Your task to perform on an android device: Open calendar and show me the second week of next month Image 0: 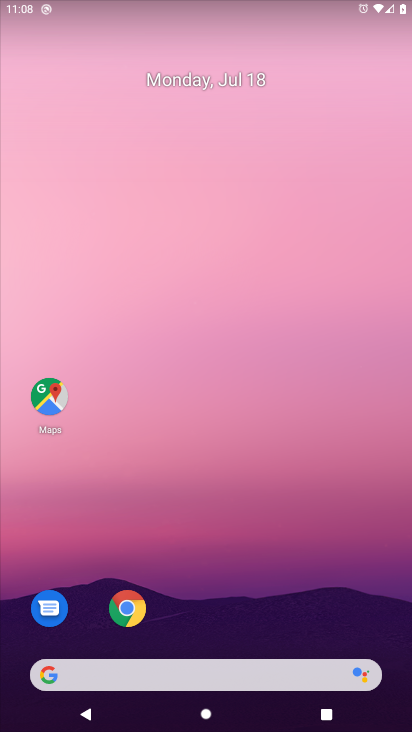
Step 0: drag from (43, 663) to (200, 91)
Your task to perform on an android device: Open calendar and show me the second week of next month Image 1: 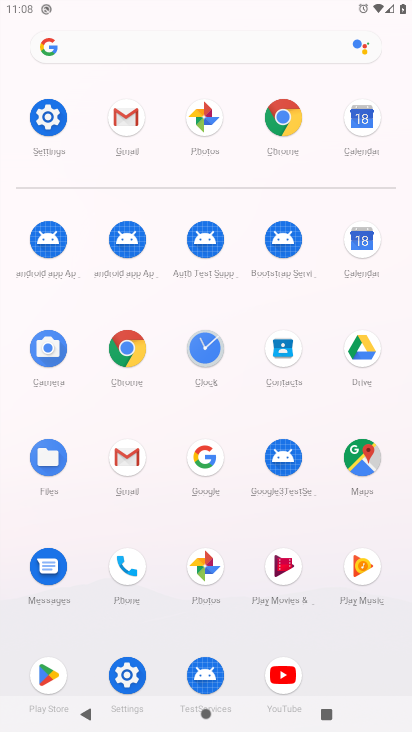
Step 1: click (372, 247)
Your task to perform on an android device: Open calendar and show me the second week of next month Image 2: 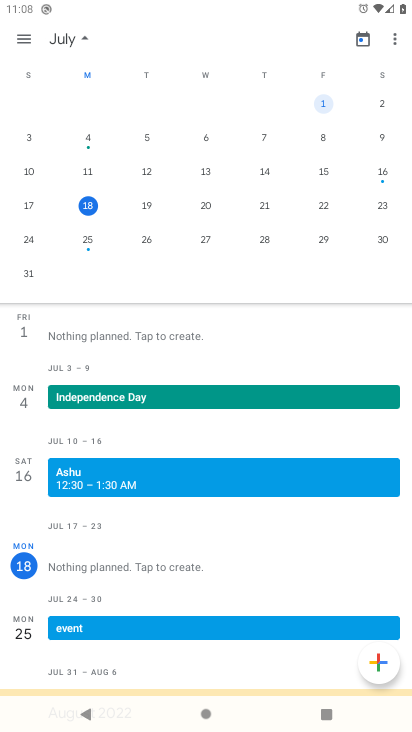
Step 2: drag from (374, 200) to (29, 200)
Your task to perform on an android device: Open calendar and show me the second week of next month Image 3: 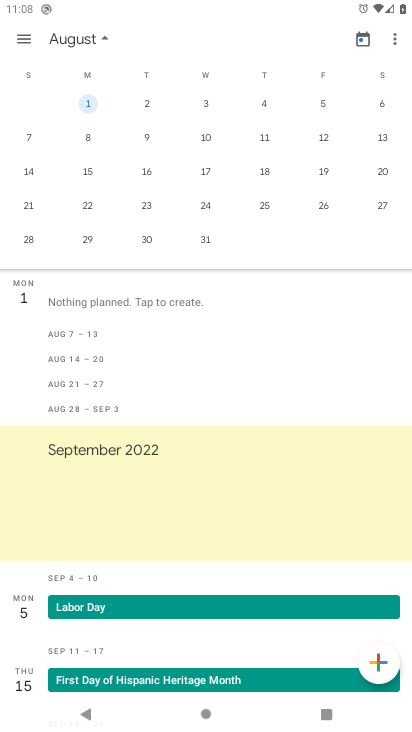
Step 3: click (89, 133)
Your task to perform on an android device: Open calendar and show me the second week of next month Image 4: 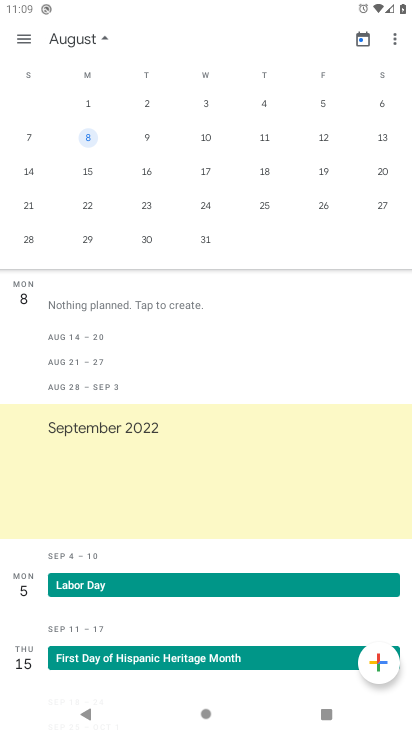
Step 4: task complete